Your task to perform on an android device: Open Google Maps Image 0: 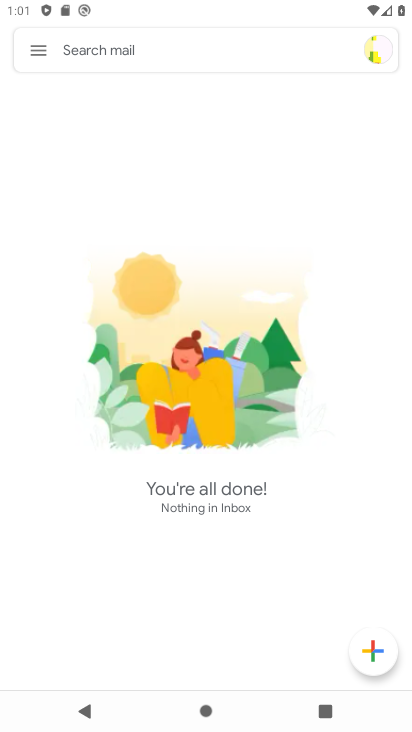
Step 0: press home button
Your task to perform on an android device: Open Google Maps Image 1: 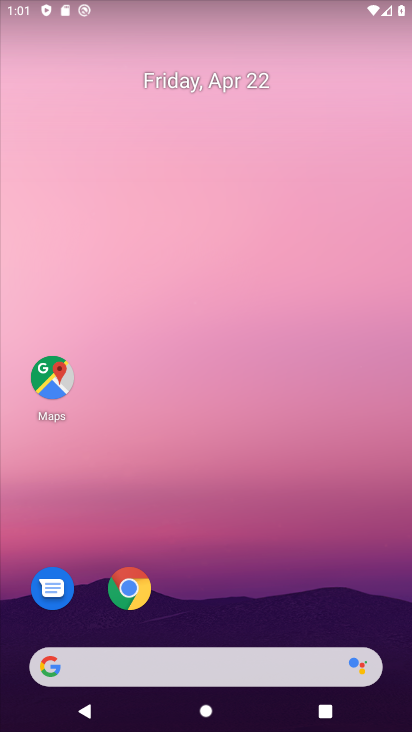
Step 1: drag from (355, 517) to (356, 112)
Your task to perform on an android device: Open Google Maps Image 2: 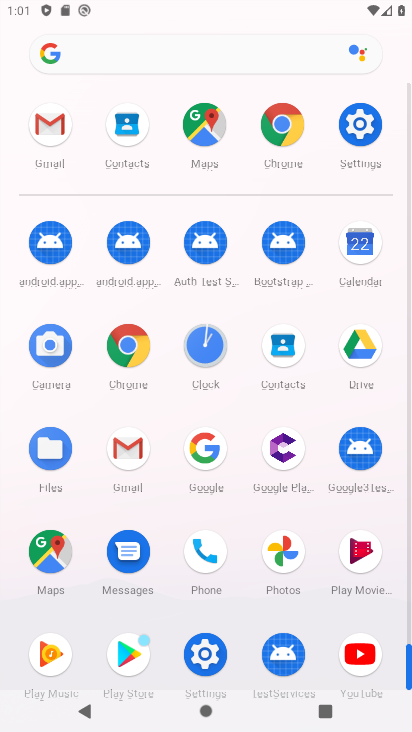
Step 2: click (50, 554)
Your task to perform on an android device: Open Google Maps Image 3: 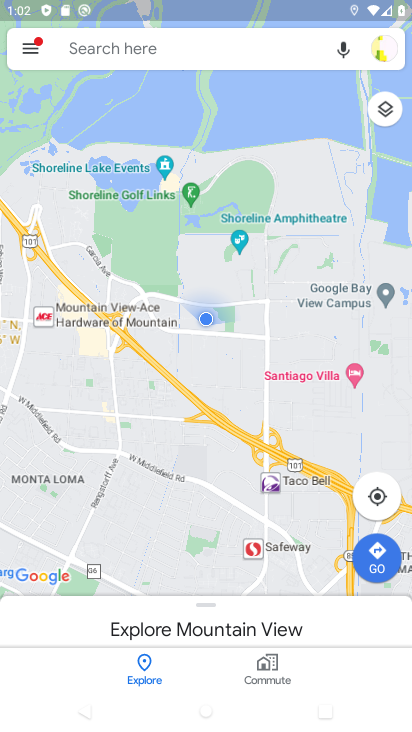
Step 3: task complete